Your task to perform on an android device: toggle location history Image 0: 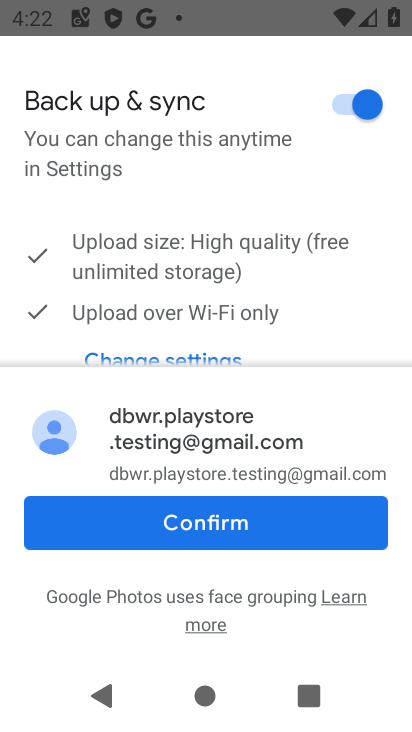
Step 0: press home button
Your task to perform on an android device: toggle location history Image 1: 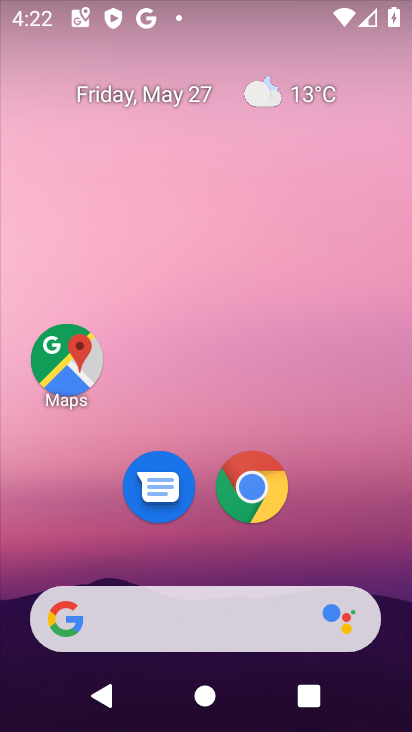
Step 1: drag from (334, 486) to (347, 65)
Your task to perform on an android device: toggle location history Image 2: 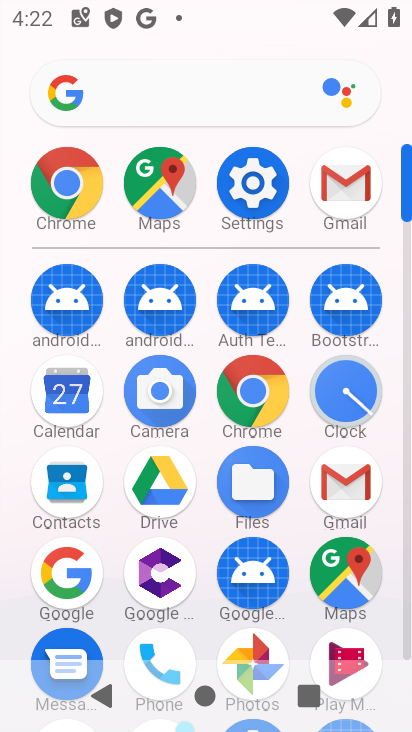
Step 2: click (258, 180)
Your task to perform on an android device: toggle location history Image 3: 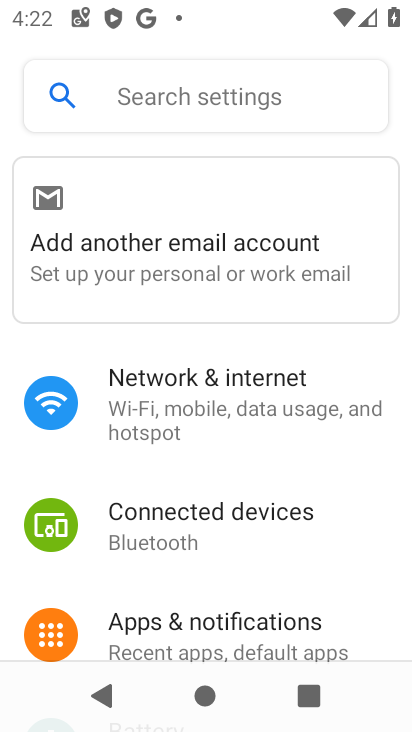
Step 3: drag from (198, 556) to (198, 3)
Your task to perform on an android device: toggle location history Image 4: 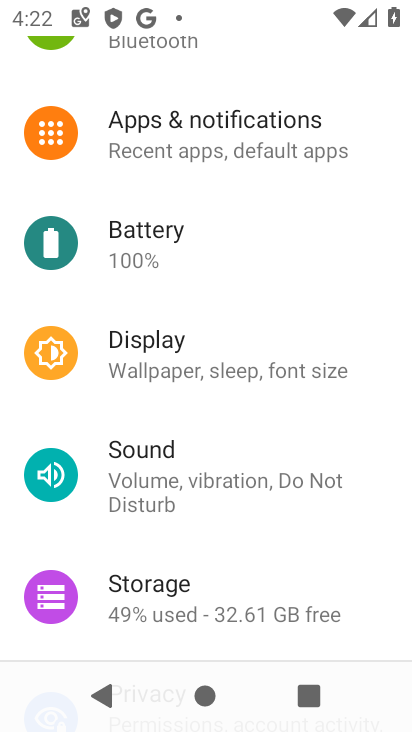
Step 4: drag from (197, 626) to (282, 81)
Your task to perform on an android device: toggle location history Image 5: 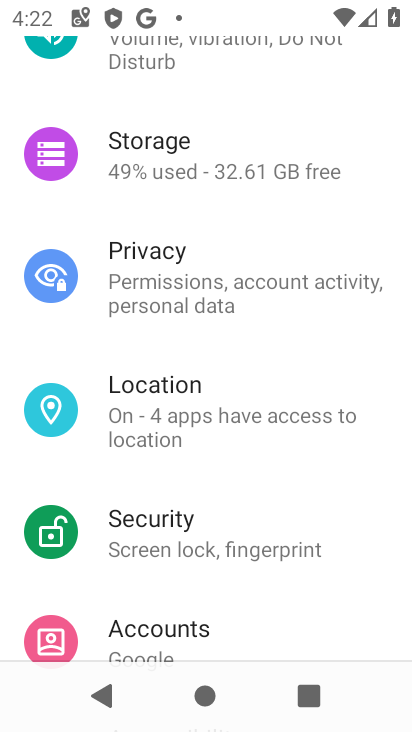
Step 5: click (162, 382)
Your task to perform on an android device: toggle location history Image 6: 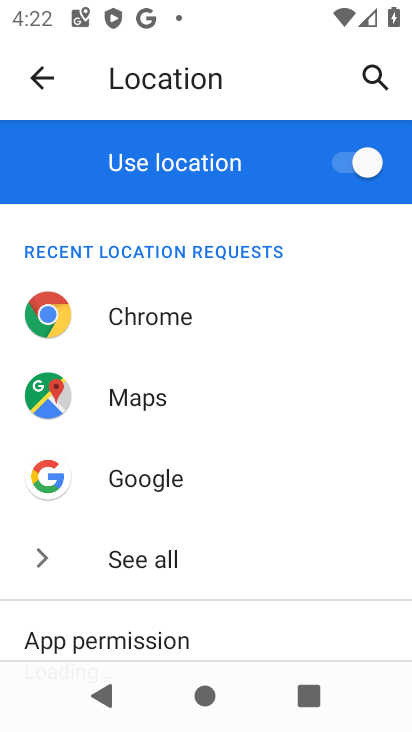
Step 6: drag from (283, 596) to (304, 100)
Your task to perform on an android device: toggle location history Image 7: 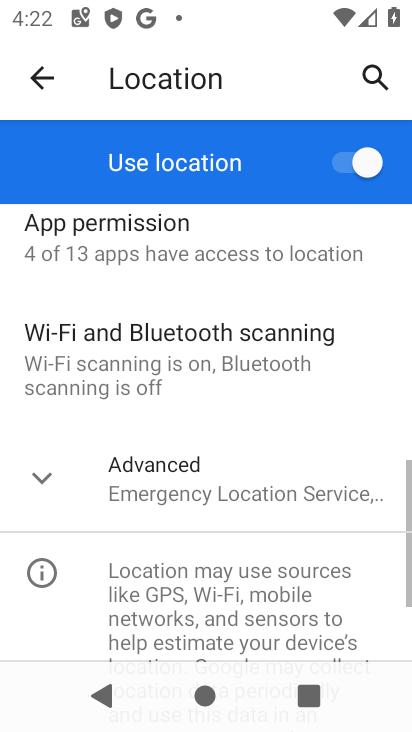
Step 7: click (156, 472)
Your task to perform on an android device: toggle location history Image 8: 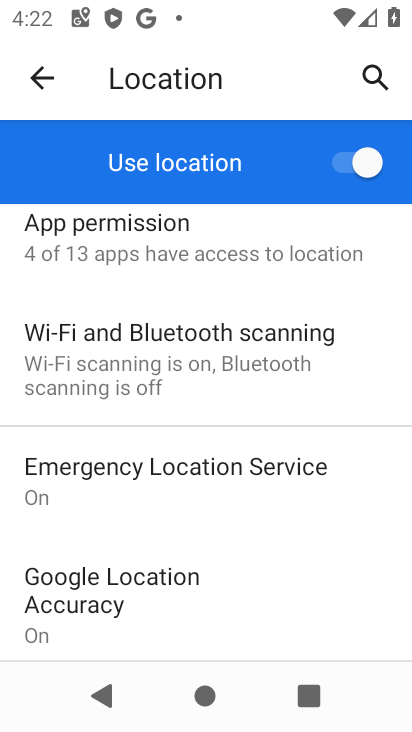
Step 8: drag from (275, 544) to (298, 178)
Your task to perform on an android device: toggle location history Image 9: 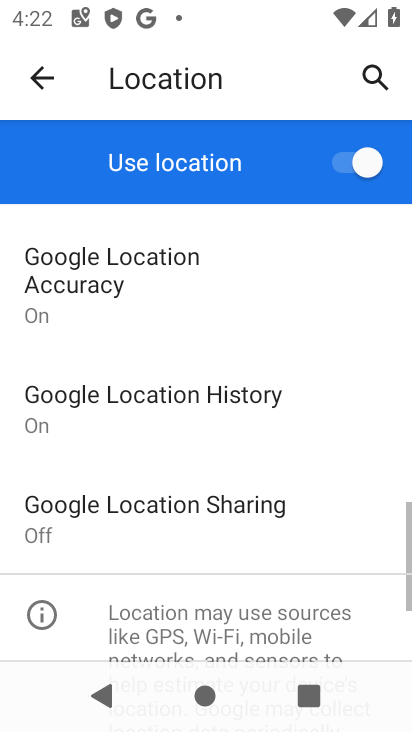
Step 9: click (298, 176)
Your task to perform on an android device: toggle location history Image 10: 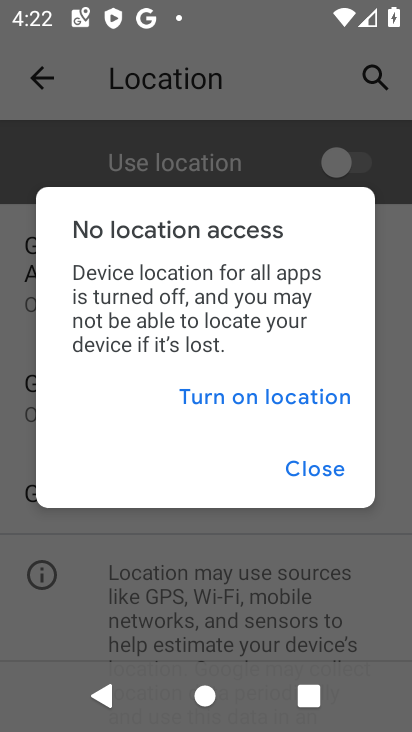
Step 10: click (286, 387)
Your task to perform on an android device: toggle location history Image 11: 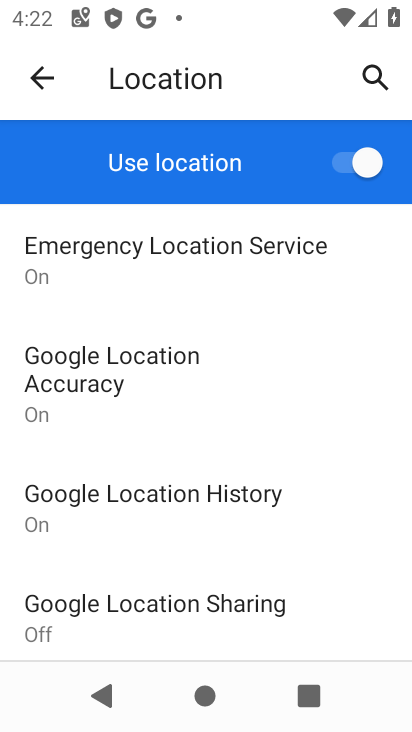
Step 11: click (242, 499)
Your task to perform on an android device: toggle location history Image 12: 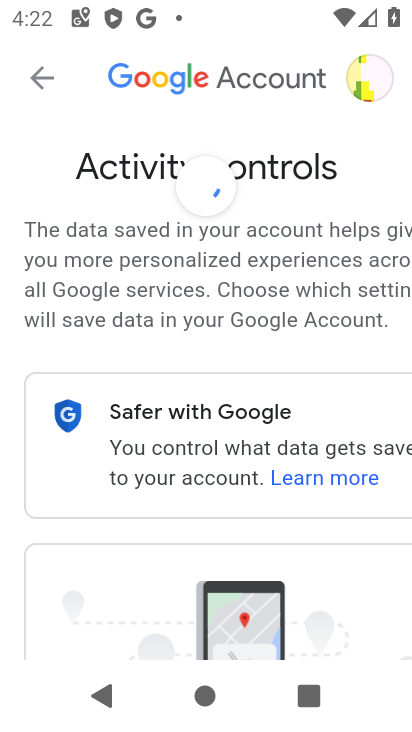
Step 12: drag from (288, 494) to (257, 2)
Your task to perform on an android device: toggle location history Image 13: 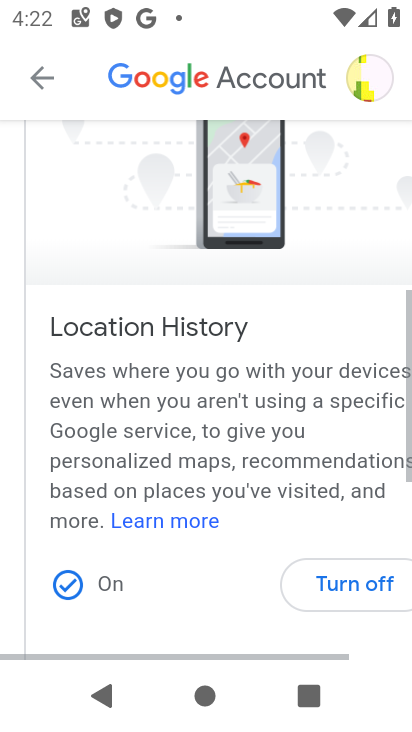
Step 13: click (349, 584)
Your task to perform on an android device: toggle location history Image 14: 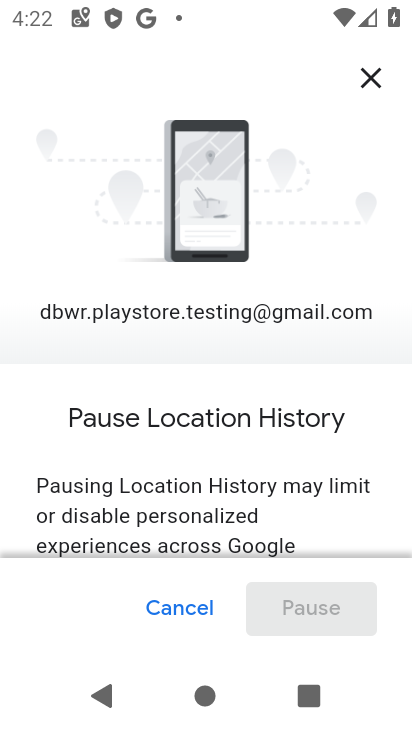
Step 14: drag from (297, 489) to (270, 13)
Your task to perform on an android device: toggle location history Image 15: 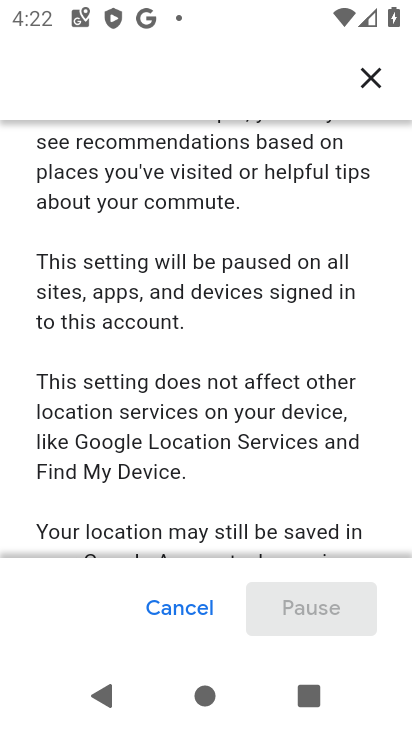
Step 15: drag from (313, 482) to (254, 30)
Your task to perform on an android device: toggle location history Image 16: 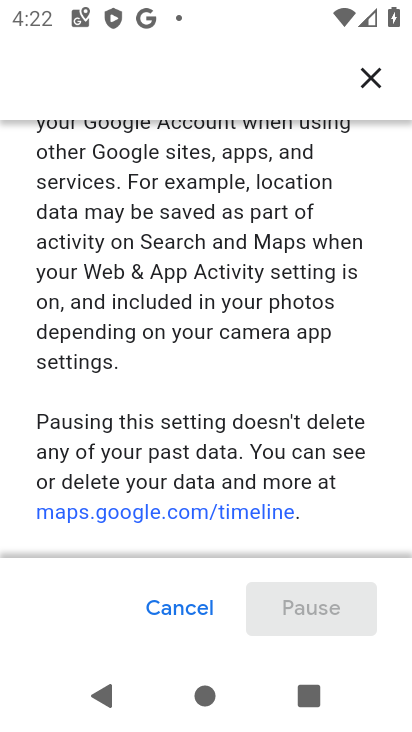
Step 16: drag from (300, 448) to (217, 74)
Your task to perform on an android device: toggle location history Image 17: 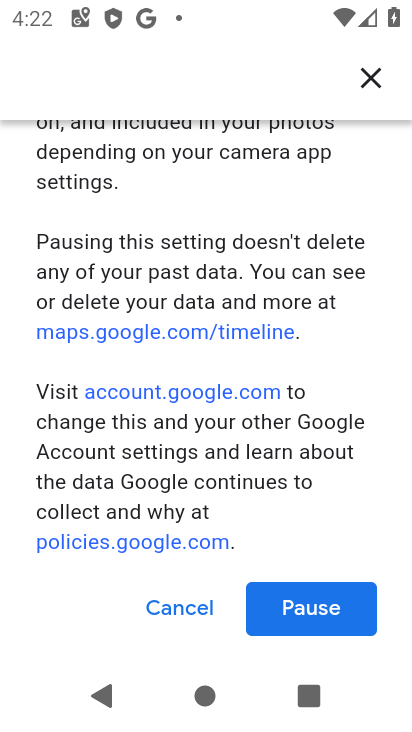
Step 17: click (216, 69)
Your task to perform on an android device: toggle location history Image 18: 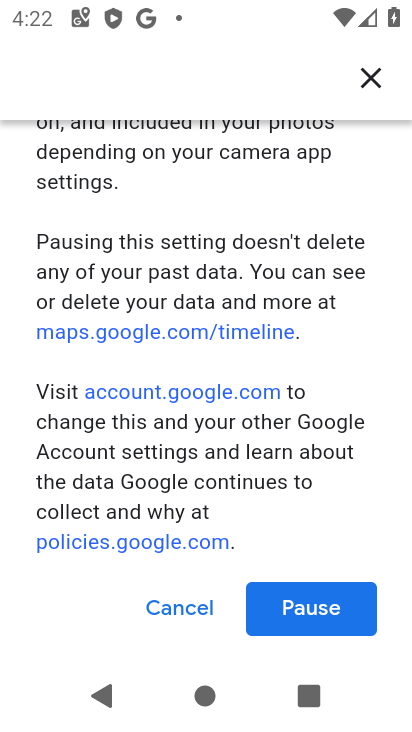
Step 18: click (325, 611)
Your task to perform on an android device: toggle location history Image 19: 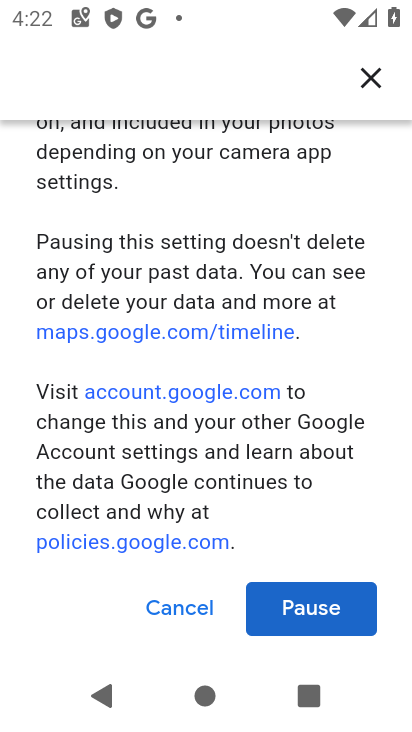
Step 19: click (330, 609)
Your task to perform on an android device: toggle location history Image 20: 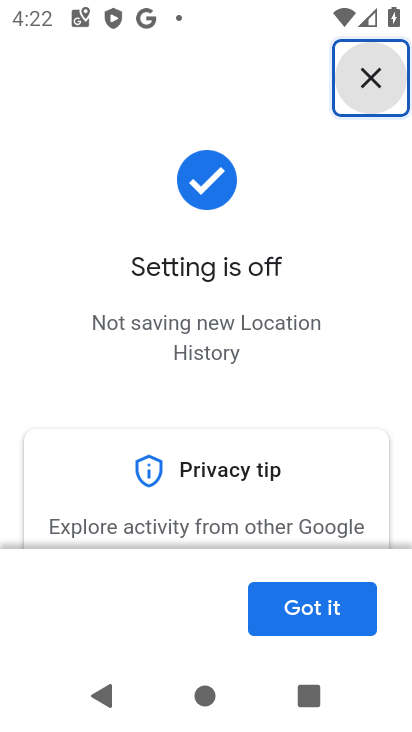
Step 20: task complete